Your task to perform on an android device: add a label to a message in the gmail app Image 0: 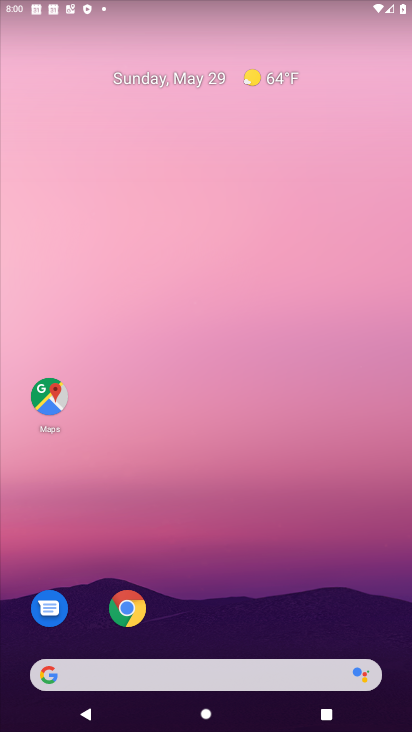
Step 0: drag from (230, 560) to (173, 135)
Your task to perform on an android device: add a label to a message in the gmail app Image 1: 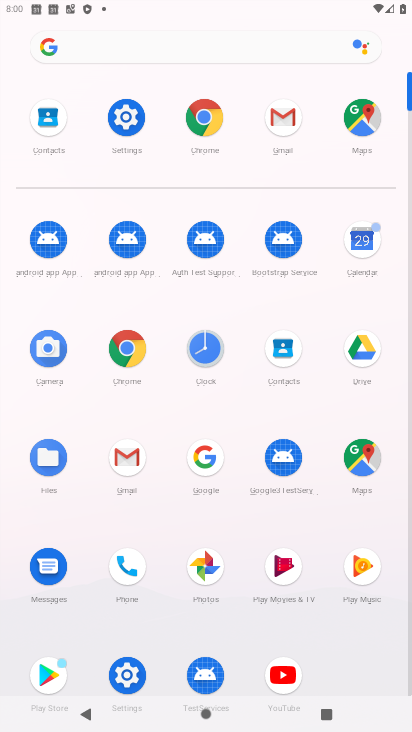
Step 1: click (277, 122)
Your task to perform on an android device: add a label to a message in the gmail app Image 2: 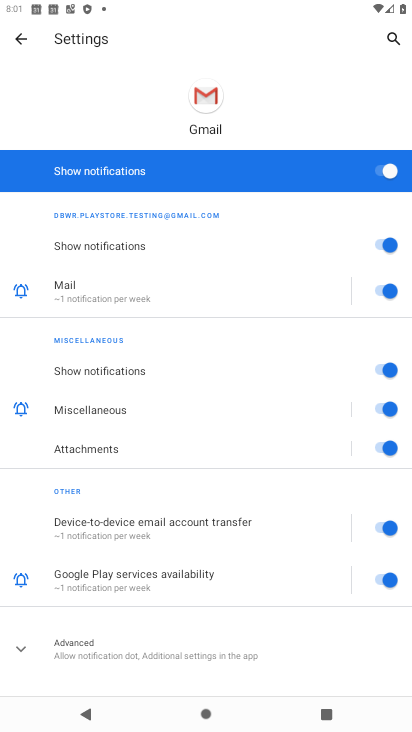
Step 2: click (17, 34)
Your task to perform on an android device: add a label to a message in the gmail app Image 3: 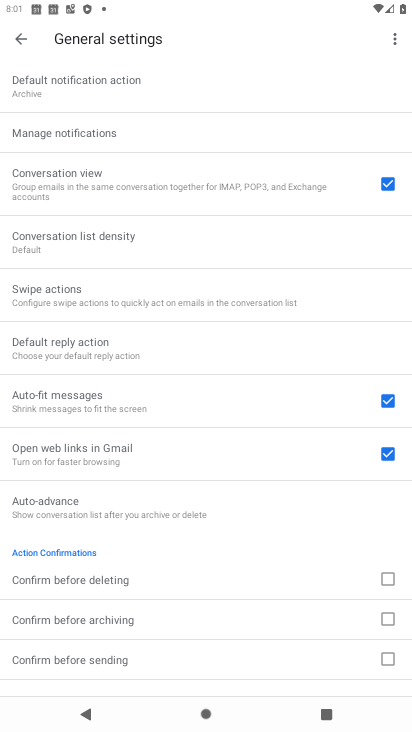
Step 3: click (14, 36)
Your task to perform on an android device: add a label to a message in the gmail app Image 4: 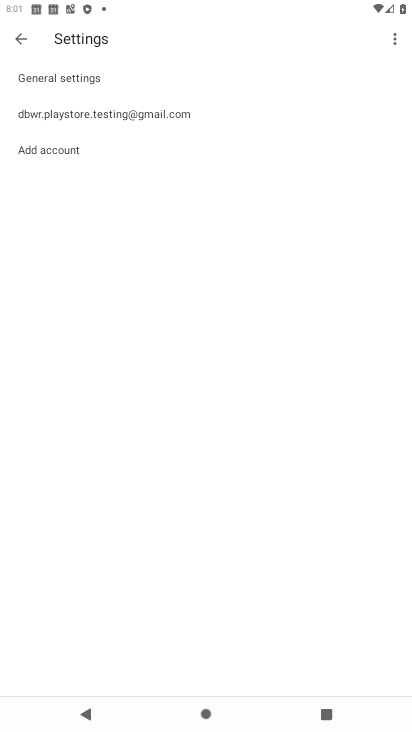
Step 4: click (21, 39)
Your task to perform on an android device: add a label to a message in the gmail app Image 5: 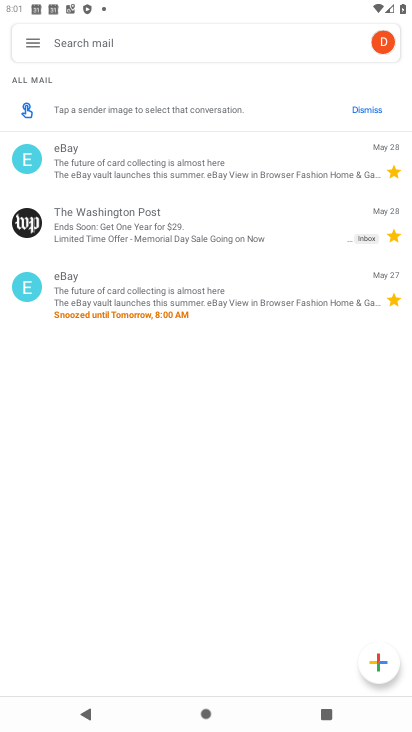
Step 5: click (178, 161)
Your task to perform on an android device: add a label to a message in the gmail app Image 6: 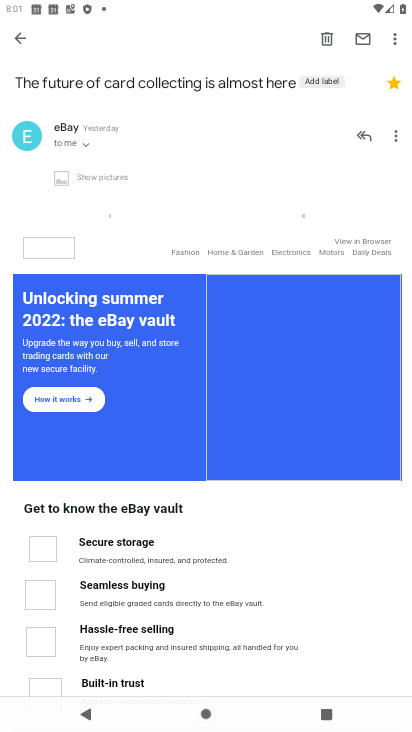
Step 6: click (396, 41)
Your task to perform on an android device: add a label to a message in the gmail app Image 7: 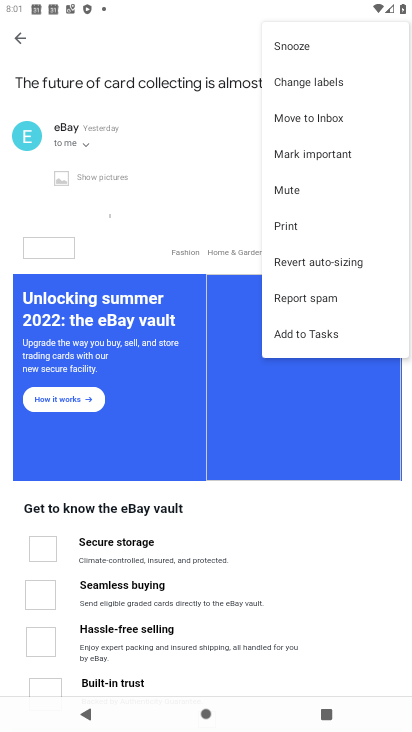
Step 7: click (341, 85)
Your task to perform on an android device: add a label to a message in the gmail app Image 8: 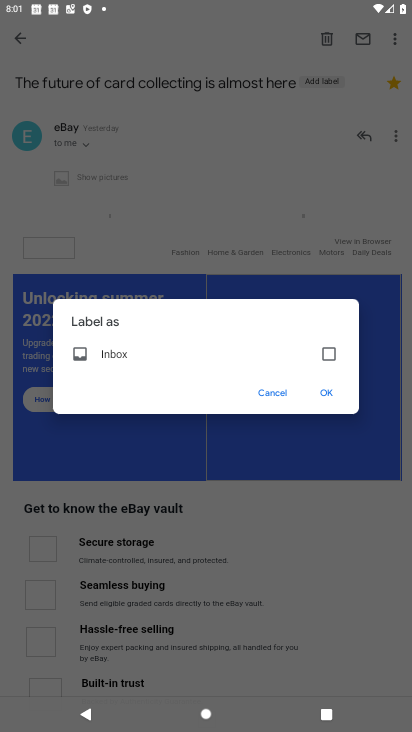
Step 8: click (332, 356)
Your task to perform on an android device: add a label to a message in the gmail app Image 9: 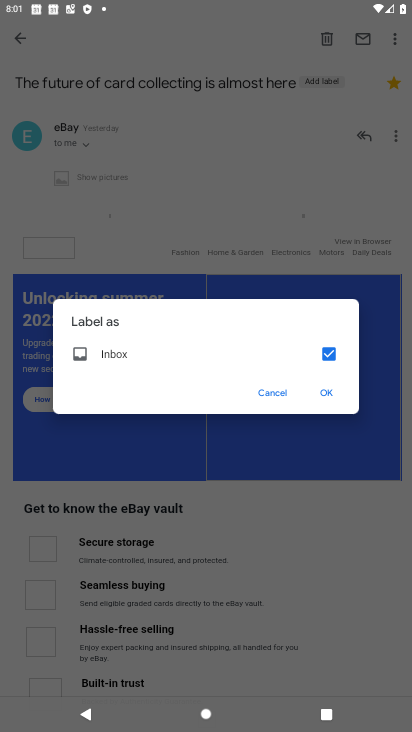
Step 9: click (323, 389)
Your task to perform on an android device: add a label to a message in the gmail app Image 10: 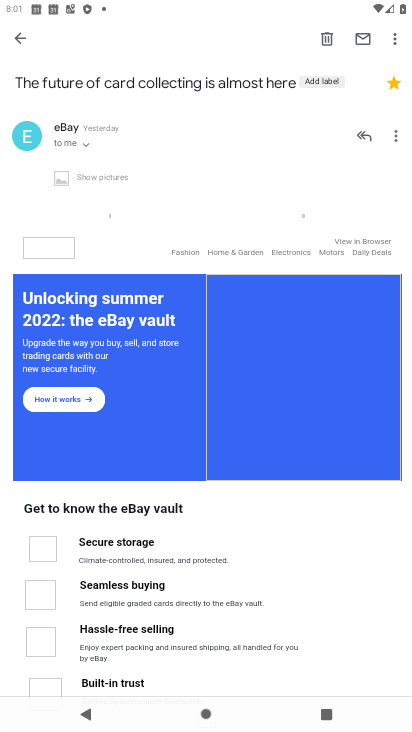
Step 10: task complete